Your task to perform on an android device: stop showing notifications on the lock screen Image 0: 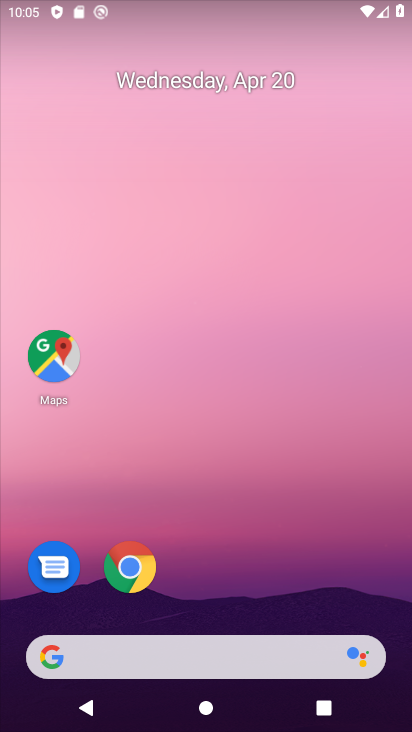
Step 0: drag from (205, 562) to (219, 45)
Your task to perform on an android device: stop showing notifications on the lock screen Image 1: 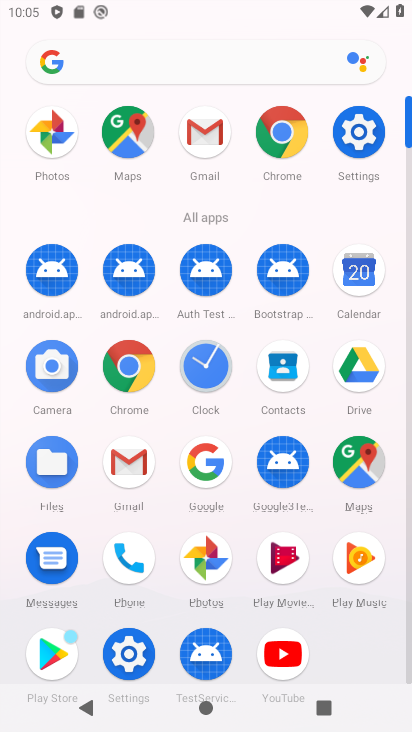
Step 1: click (359, 132)
Your task to perform on an android device: stop showing notifications on the lock screen Image 2: 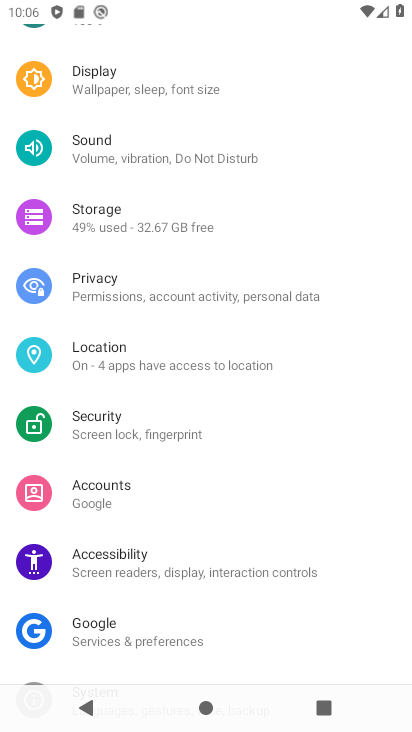
Step 2: drag from (333, 222) to (364, 386)
Your task to perform on an android device: stop showing notifications on the lock screen Image 3: 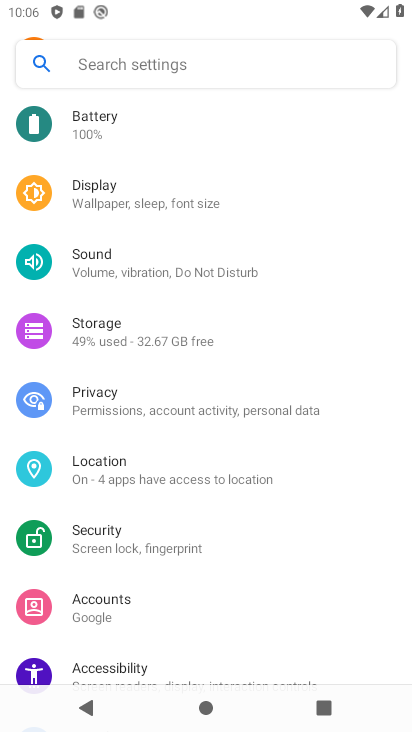
Step 3: drag from (305, 225) to (330, 402)
Your task to perform on an android device: stop showing notifications on the lock screen Image 4: 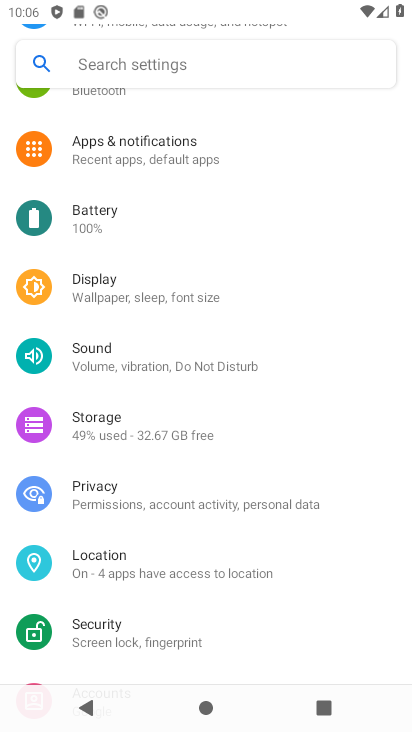
Step 4: click (151, 153)
Your task to perform on an android device: stop showing notifications on the lock screen Image 5: 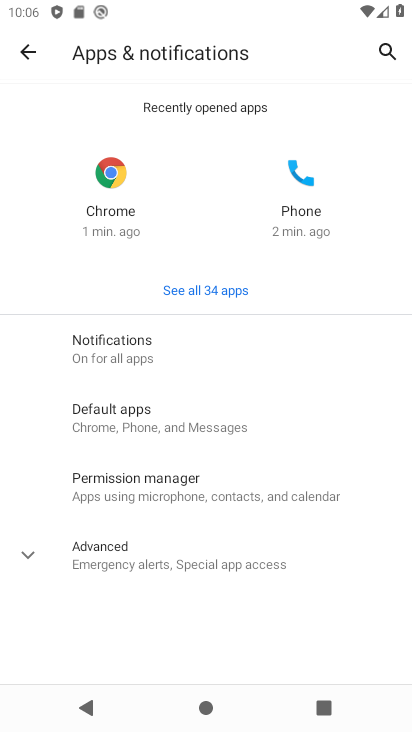
Step 5: click (127, 347)
Your task to perform on an android device: stop showing notifications on the lock screen Image 6: 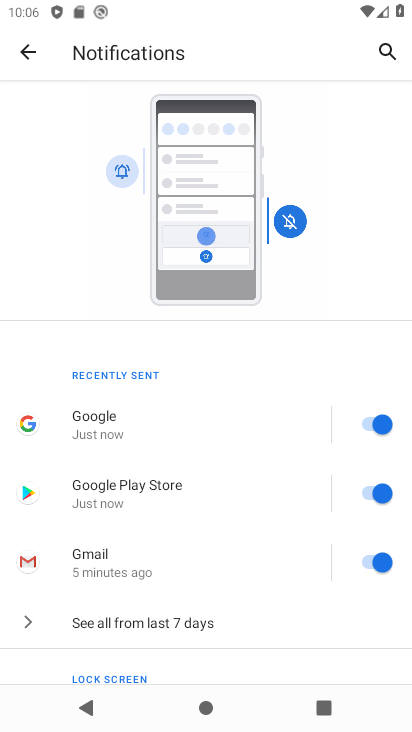
Step 6: drag from (197, 545) to (216, 371)
Your task to perform on an android device: stop showing notifications on the lock screen Image 7: 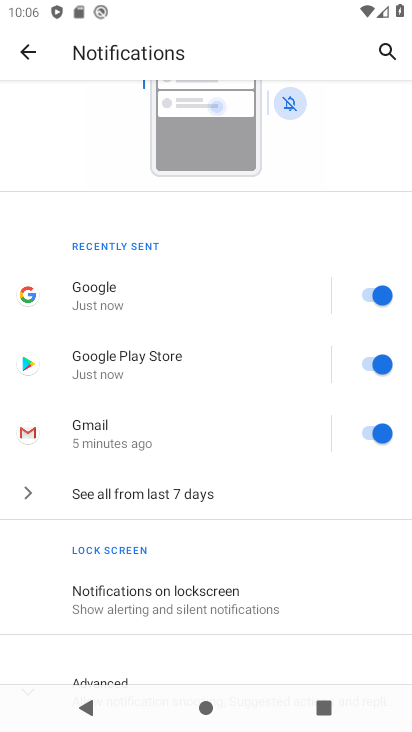
Step 7: drag from (218, 550) to (272, 404)
Your task to perform on an android device: stop showing notifications on the lock screen Image 8: 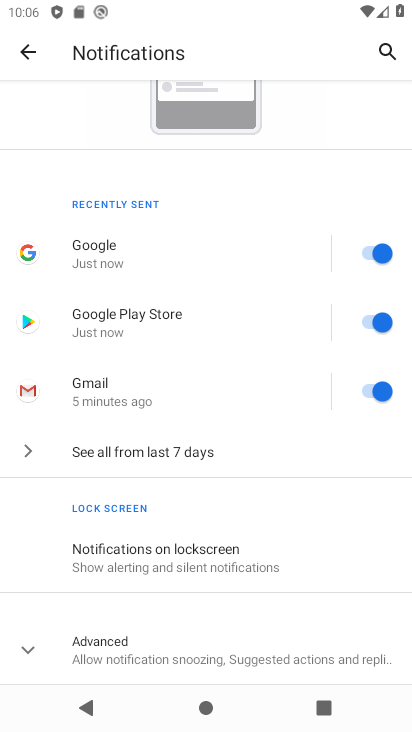
Step 8: click (187, 547)
Your task to perform on an android device: stop showing notifications on the lock screen Image 9: 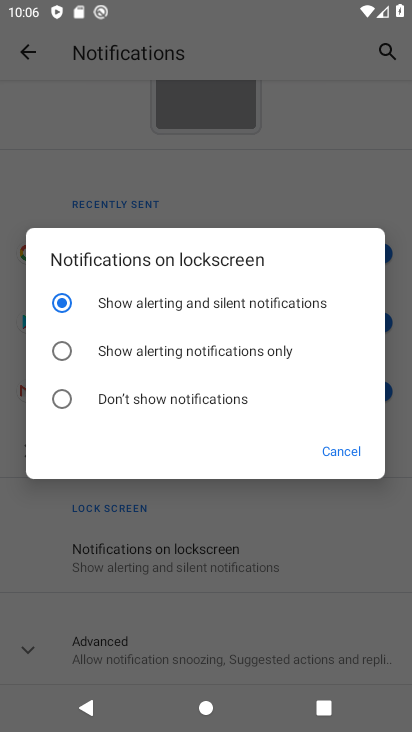
Step 9: click (69, 398)
Your task to perform on an android device: stop showing notifications on the lock screen Image 10: 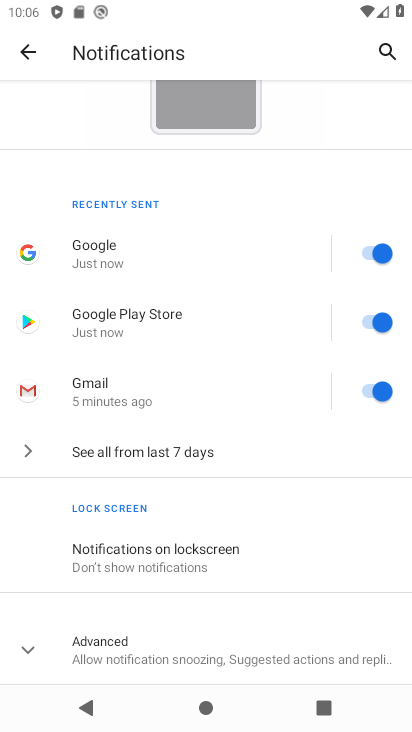
Step 10: task complete